Your task to perform on an android device: Open Google Chrome and click the shortcut for Amazon.com Image 0: 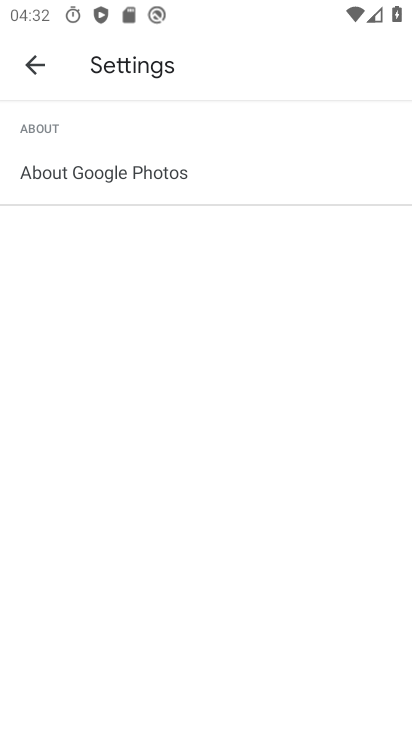
Step 0: press home button
Your task to perform on an android device: Open Google Chrome and click the shortcut for Amazon.com Image 1: 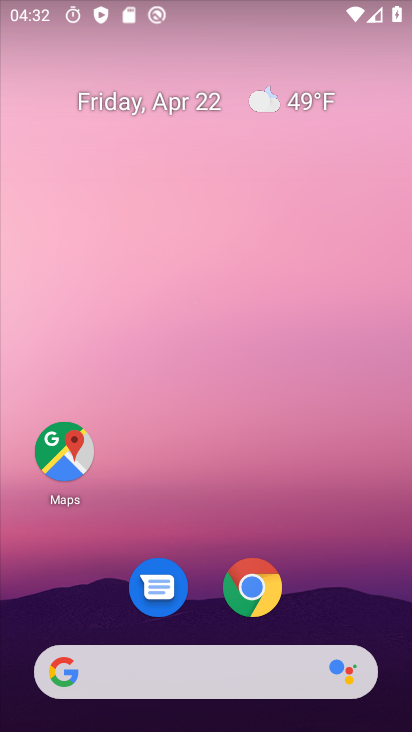
Step 1: click (261, 588)
Your task to perform on an android device: Open Google Chrome and click the shortcut for Amazon.com Image 2: 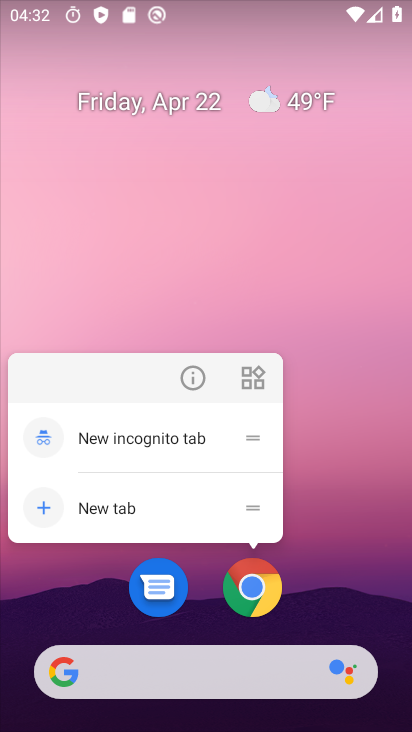
Step 2: click (248, 591)
Your task to perform on an android device: Open Google Chrome and click the shortcut for Amazon.com Image 3: 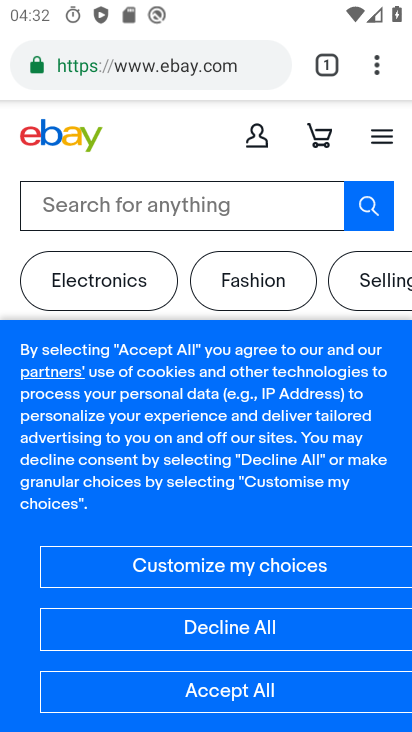
Step 3: click (375, 64)
Your task to perform on an android device: Open Google Chrome and click the shortcut for Amazon.com Image 4: 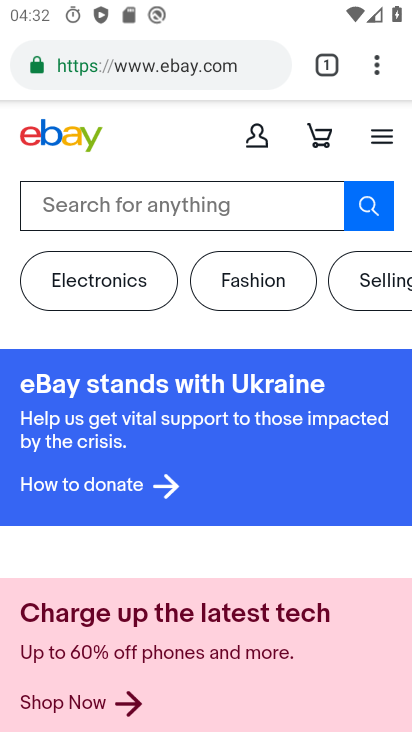
Step 4: click (372, 66)
Your task to perform on an android device: Open Google Chrome and click the shortcut for Amazon.com Image 5: 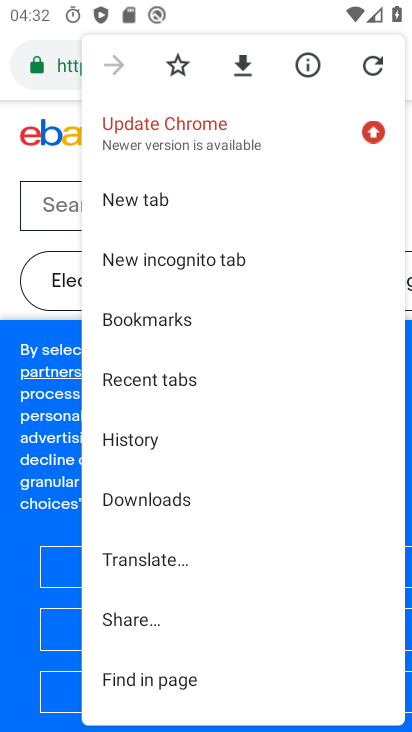
Step 5: click (109, 205)
Your task to perform on an android device: Open Google Chrome and click the shortcut for Amazon.com Image 6: 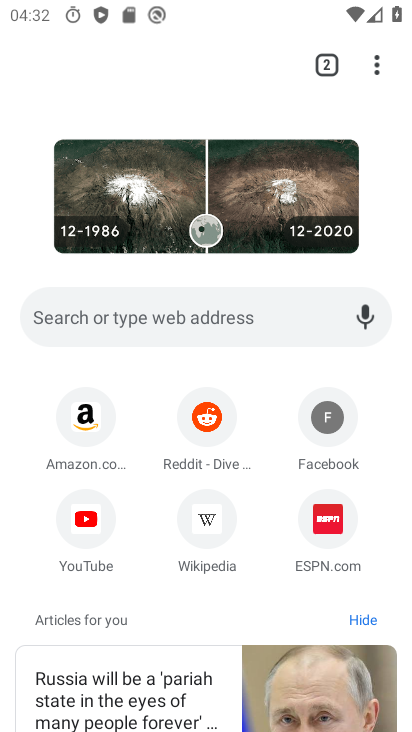
Step 6: click (81, 424)
Your task to perform on an android device: Open Google Chrome and click the shortcut for Amazon.com Image 7: 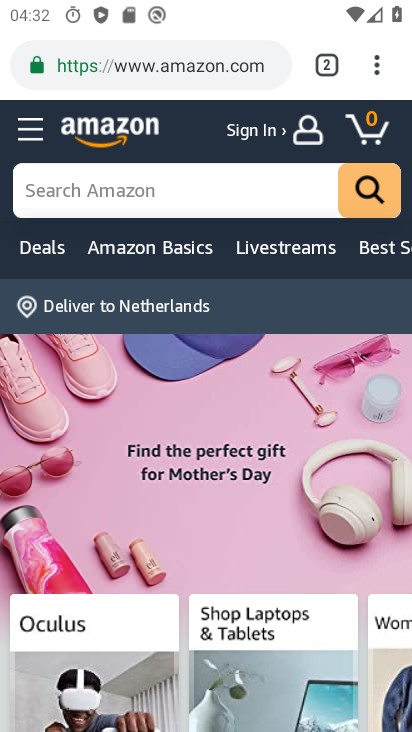
Step 7: task complete